Your task to perform on an android device: open app "Adobe Express: Graphic Design" Image 0: 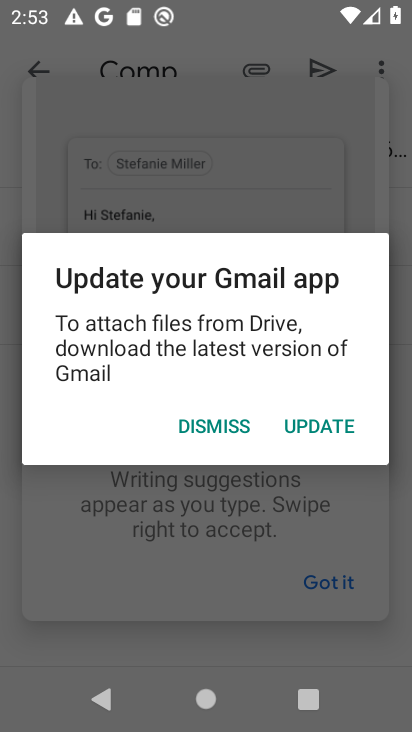
Step 0: click (340, 428)
Your task to perform on an android device: open app "Adobe Express: Graphic Design" Image 1: 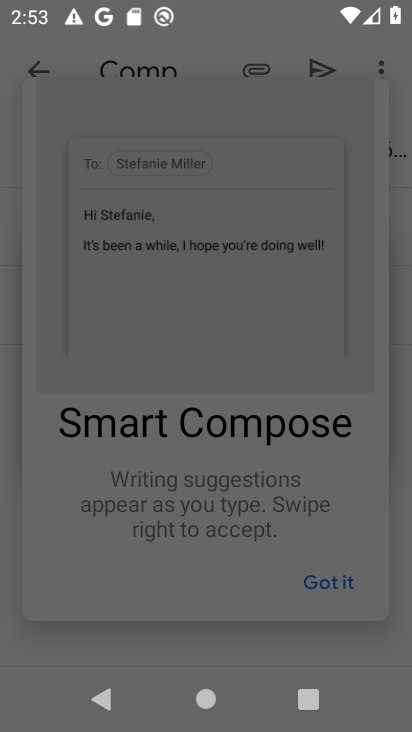
Step 1: task complete